Your task to perform on an android device: Go to settings Image 0: 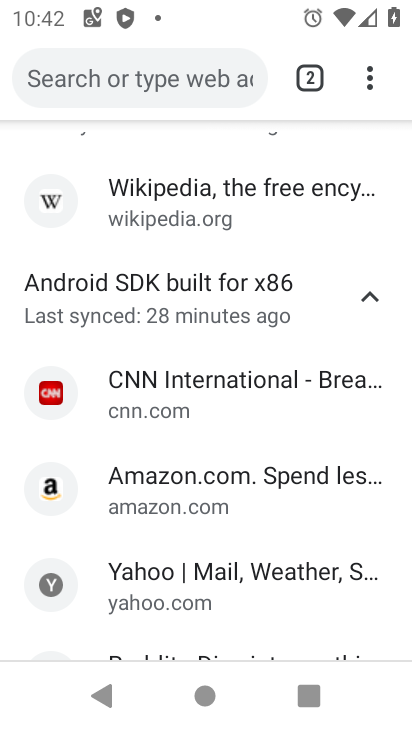
Step 0: press home button
Your task to perform on an android device: Go to settings Image 1: 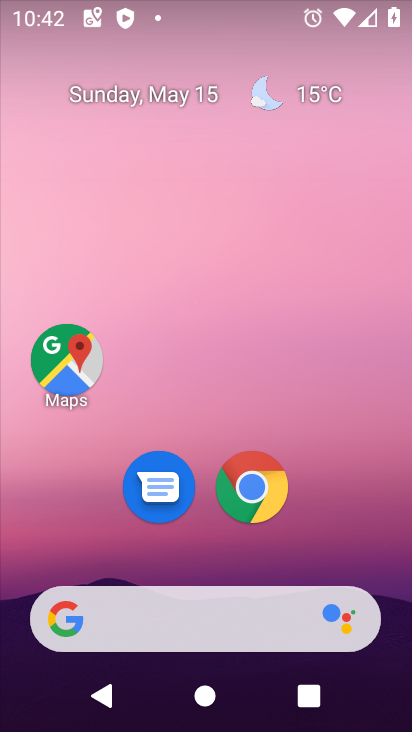
Step 1: drag from (402, 625) to (376, 162)
Your task to perform on an android device: Go to settings Image 2: 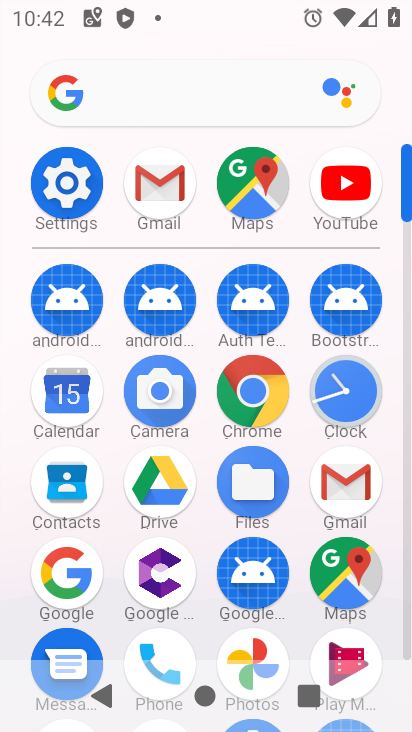
Step 2: click (409, 647)
Your task to perform on an android device: Go to settings Image 3: 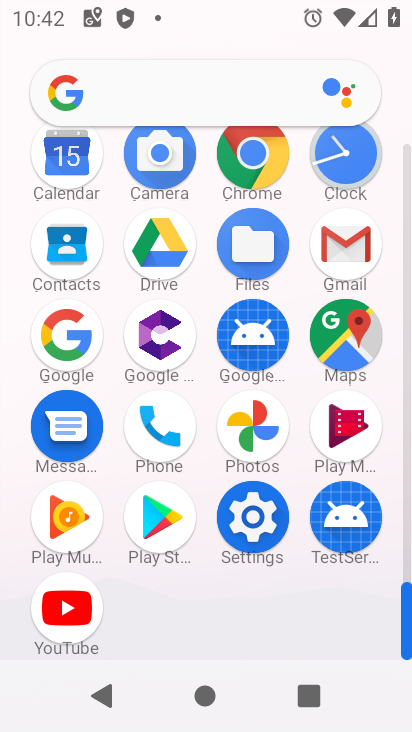
Step 3: click (252, 516)
Your task to perform on an android device: Go to settings Image 4: 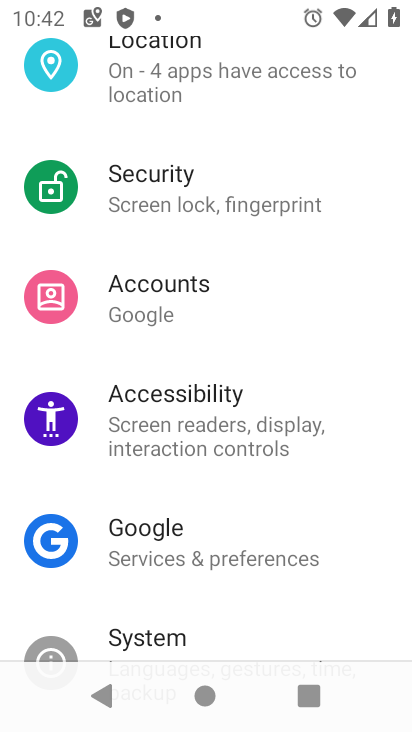
Step 4: task complete